Your task to perform on an android device: Add jbl charge 4 to the cart on bestbuy Image 0: 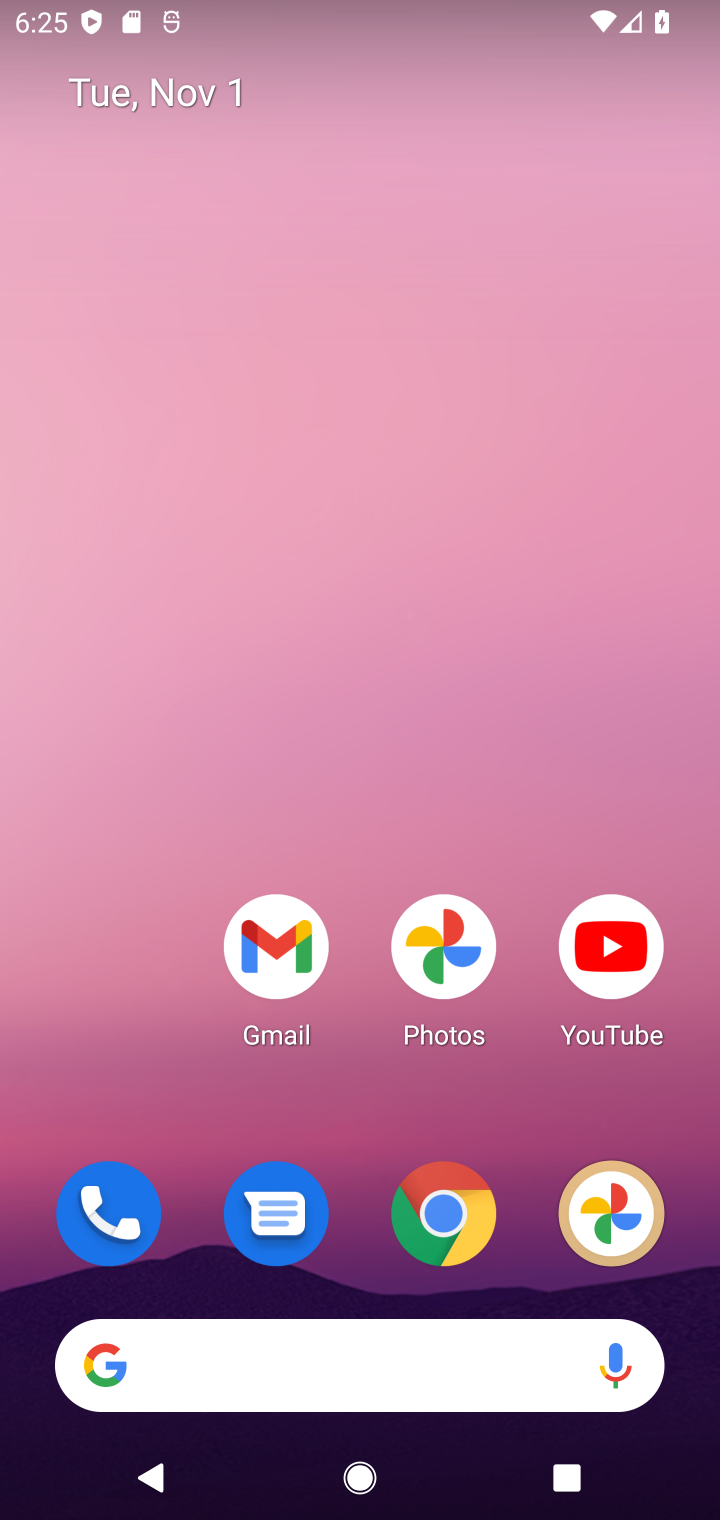
Step 0: click (447, 1212)
Your task to perform on an android device: Add jbl charge 4 to the cart on bestbuy Image 1: 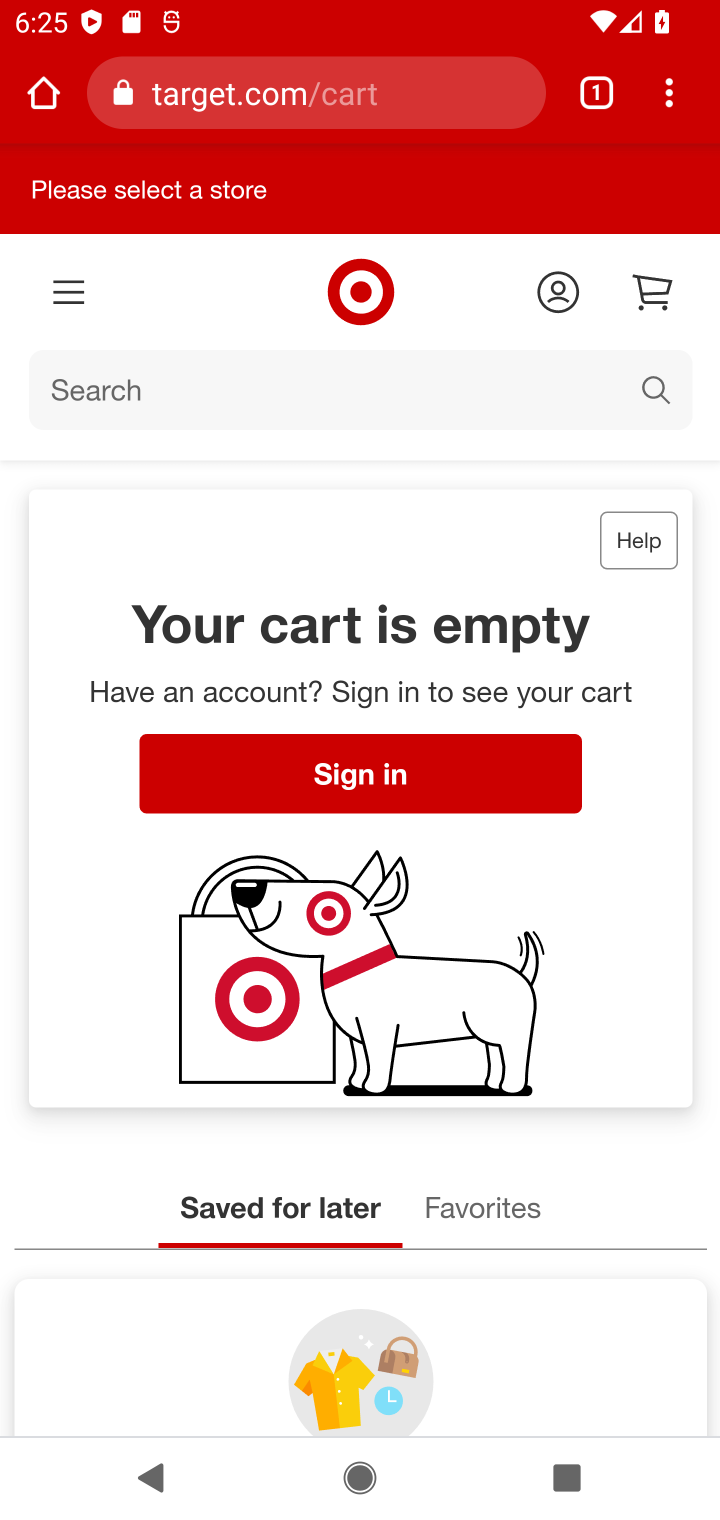
Step 1: click (326, 103)
Your task to perform on an android device: Add jbl charge 4 to the cart on bestbuy Image 2: 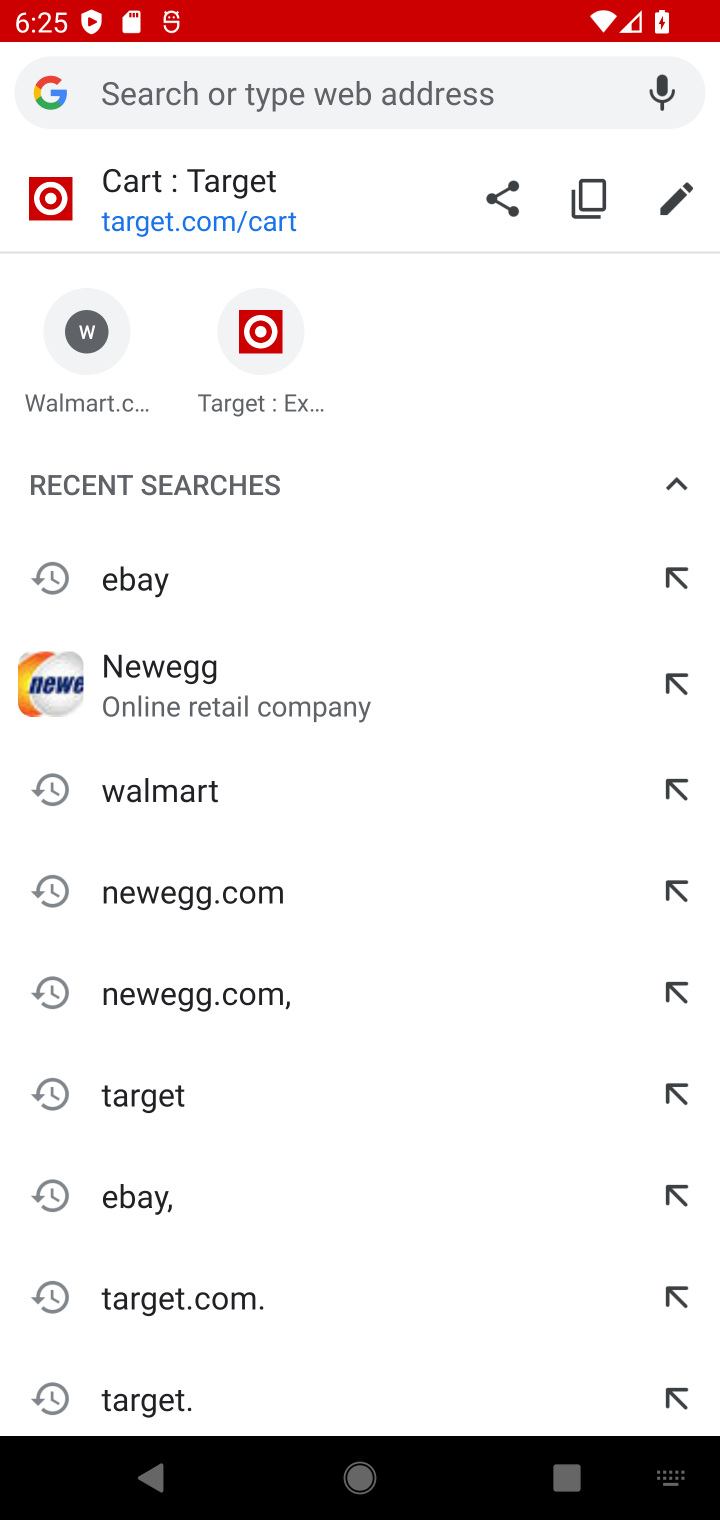
Step 2: type "bestbuy"
Your task to perform on an android device: Add jbl charge 4 to the cart on bestbuy Image 3: 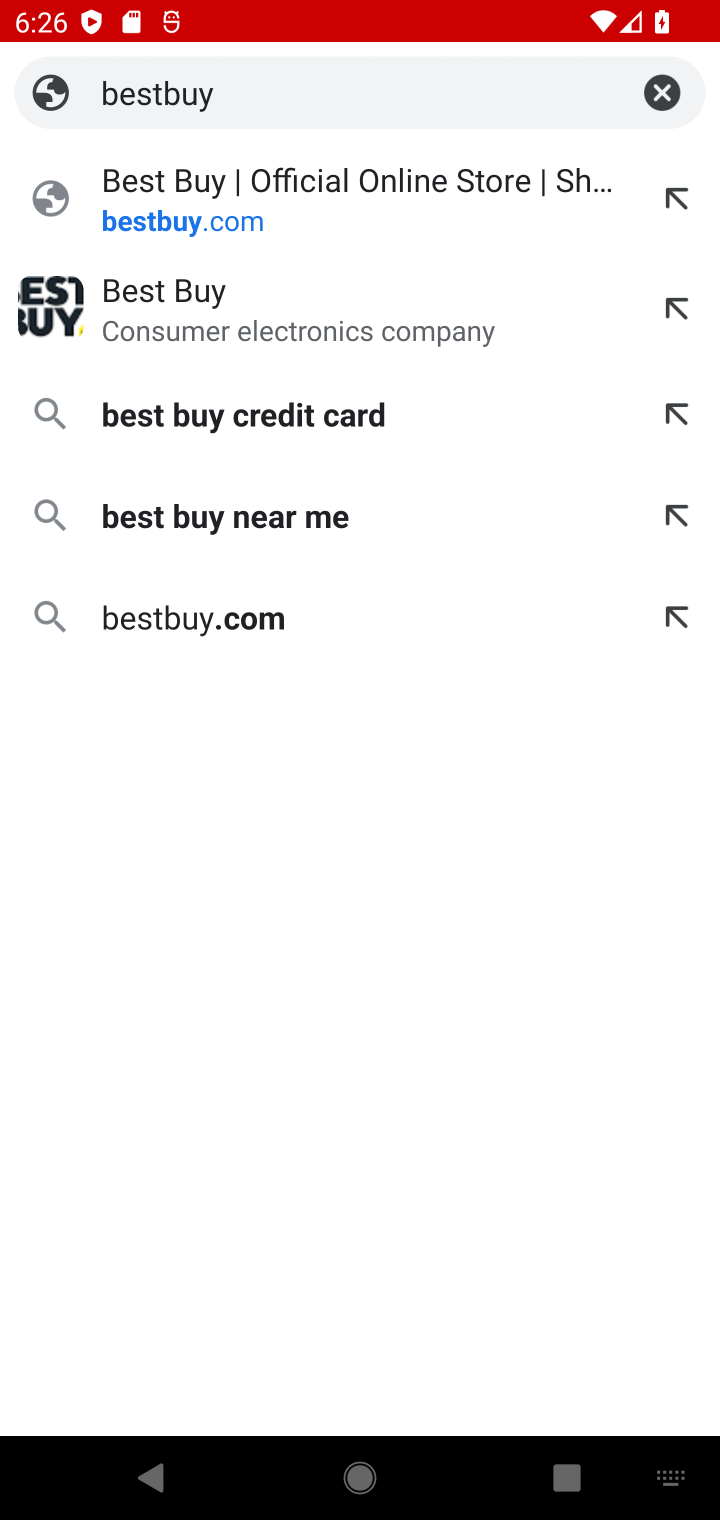
Step 3: click (158, 190)
Your task to perform on an android device: Add jbl charge 4 to the cart on bestbuy Image 4: 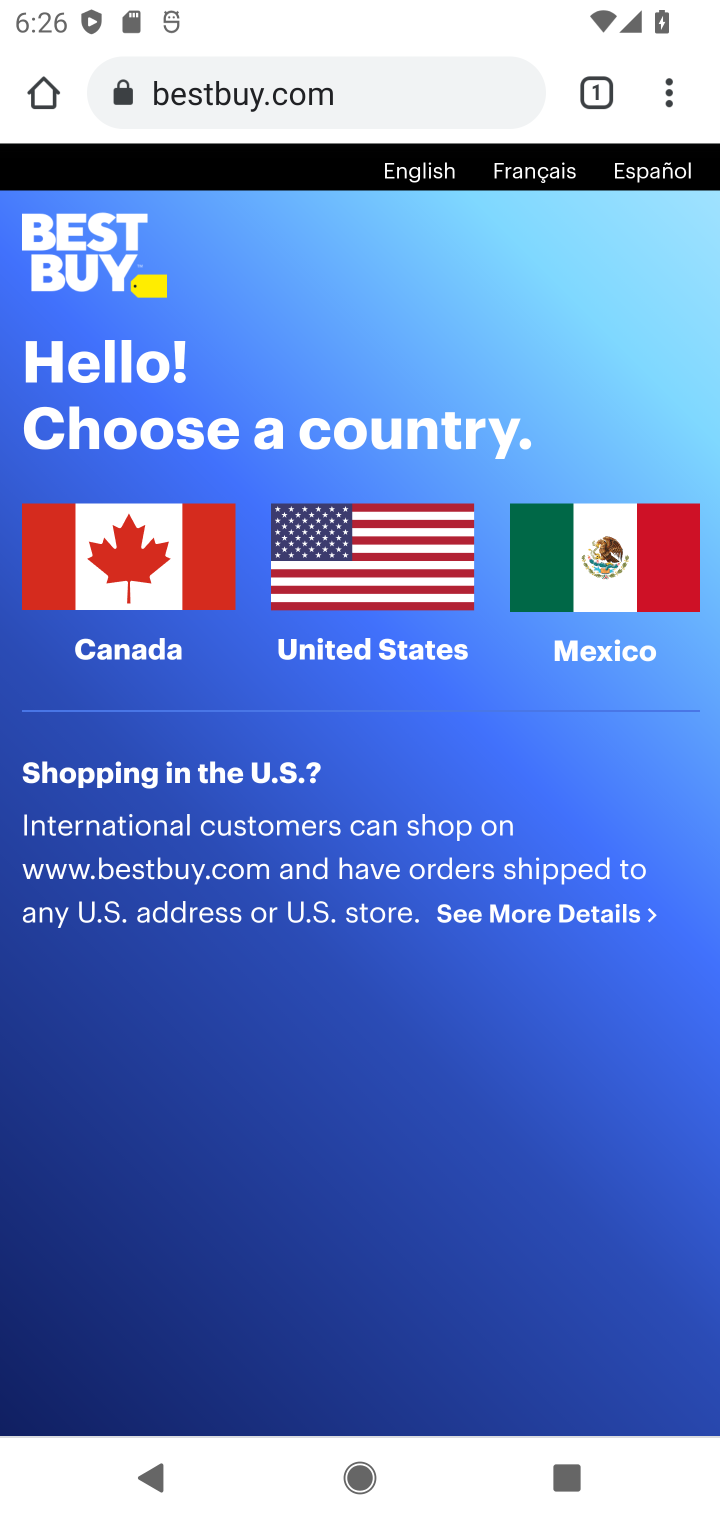
Step 4: click (389, 583)
Your task to perform on an android device: Add jbl charge 4 to the cart on bestbuy Image 5: 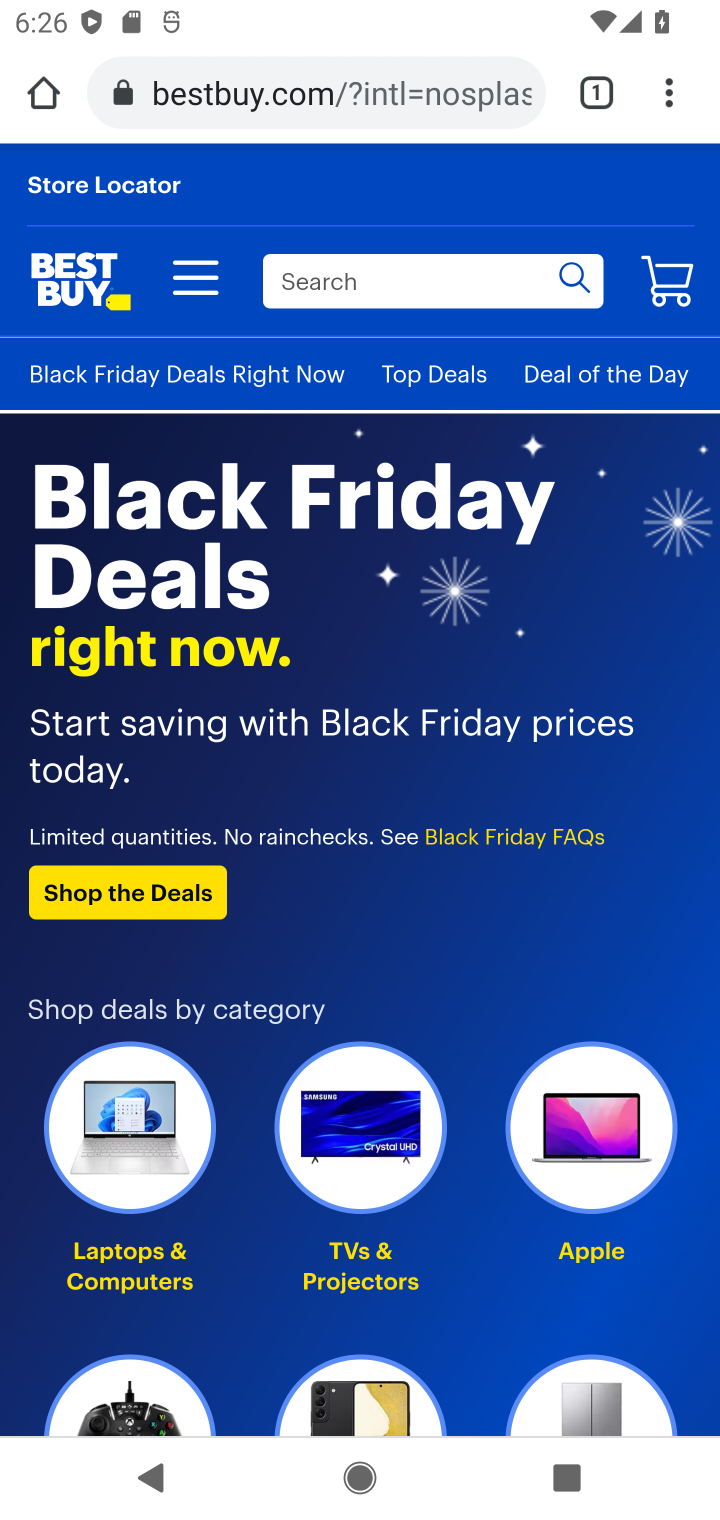
Step 5: click (398, 269)
Your task to perform on an android device: Add jbl charge 4 to the cart on bestbuy Image 6: 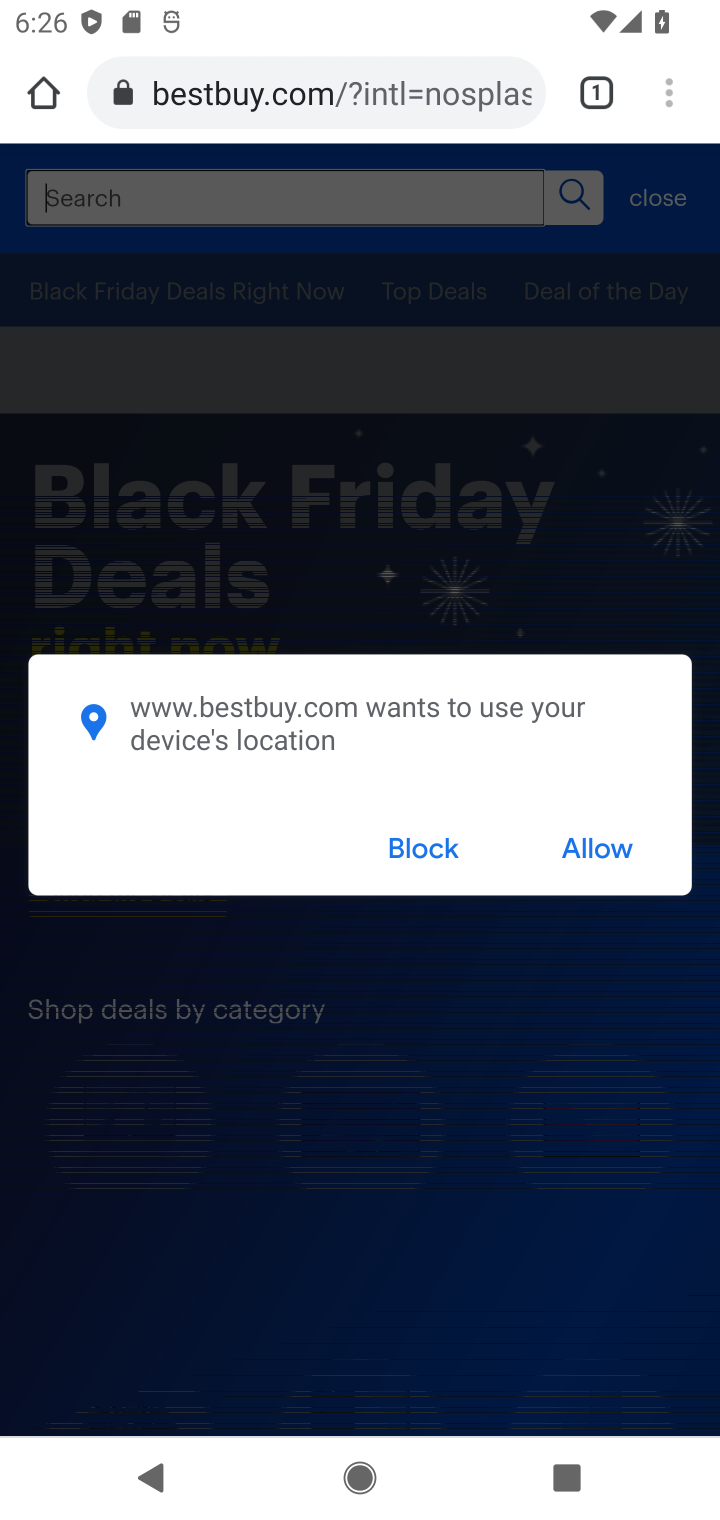
Step 6: click (603, 839)
Your task to perform on an android device: Add jbl charge 4 to the cart on bestbuy Image 7: 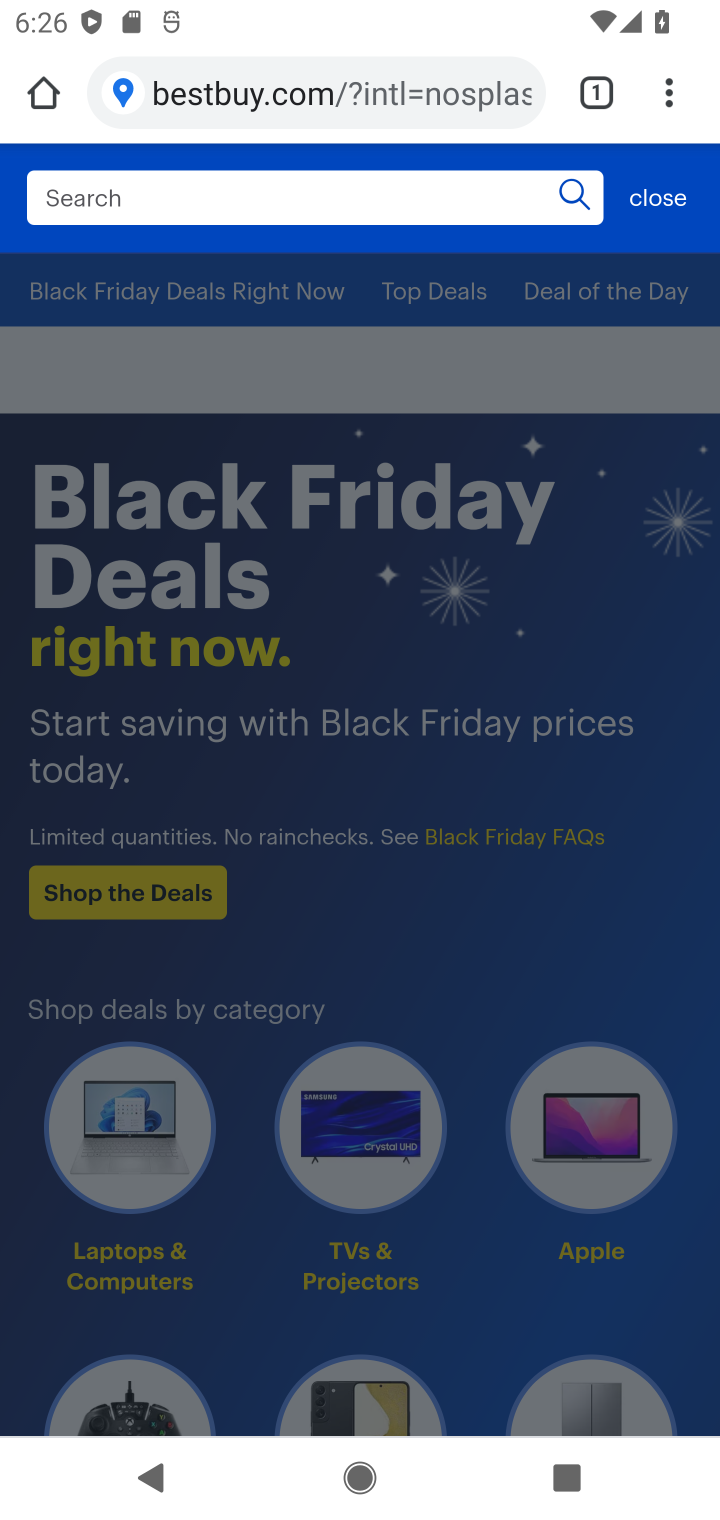
Step 7: click (218, 186)
Your task to perform on an android device: Add jbl charge 4 to the cart on bestbuy Image 8: 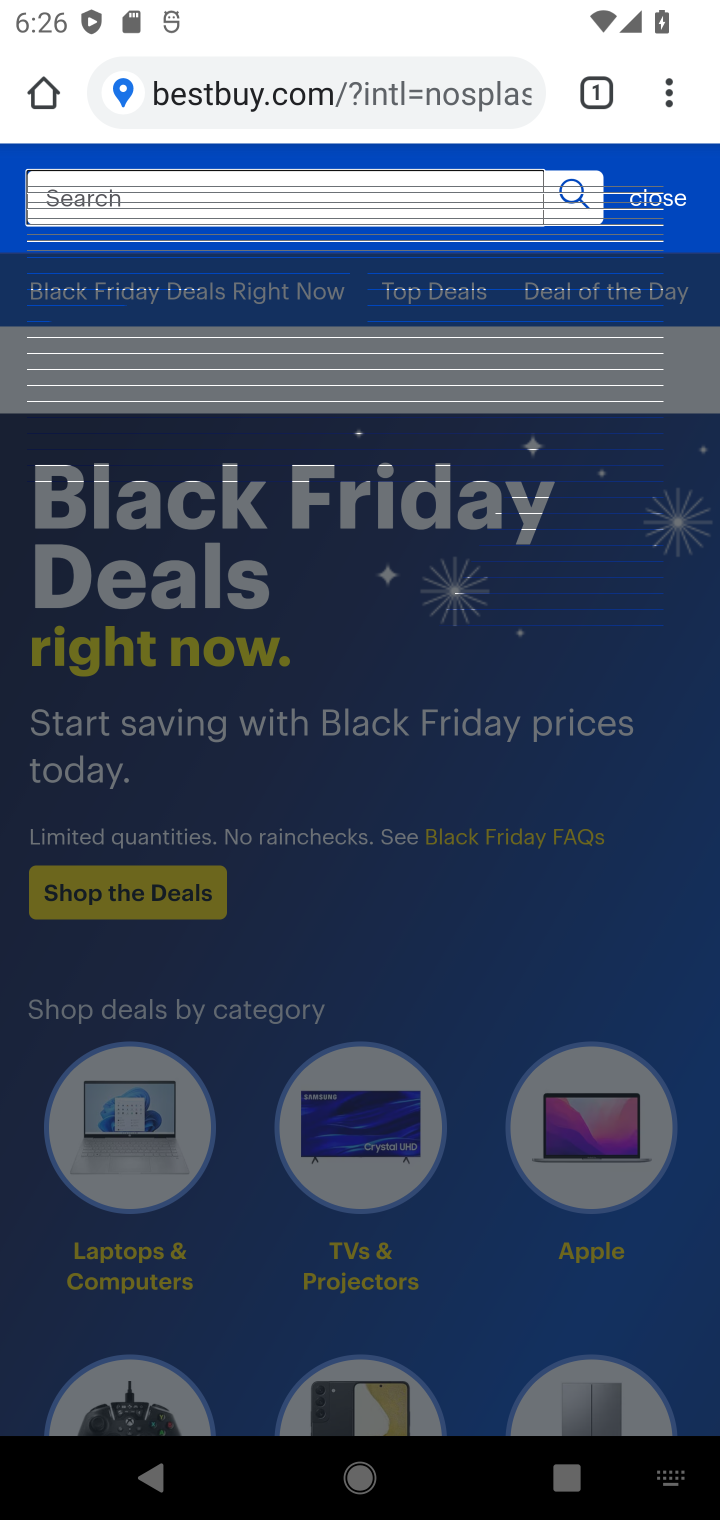
Step 8: type "jbl charge 4"
Your task to perform on an android device: Add jbl charge 4 to the cart on bestbuy Image 9: 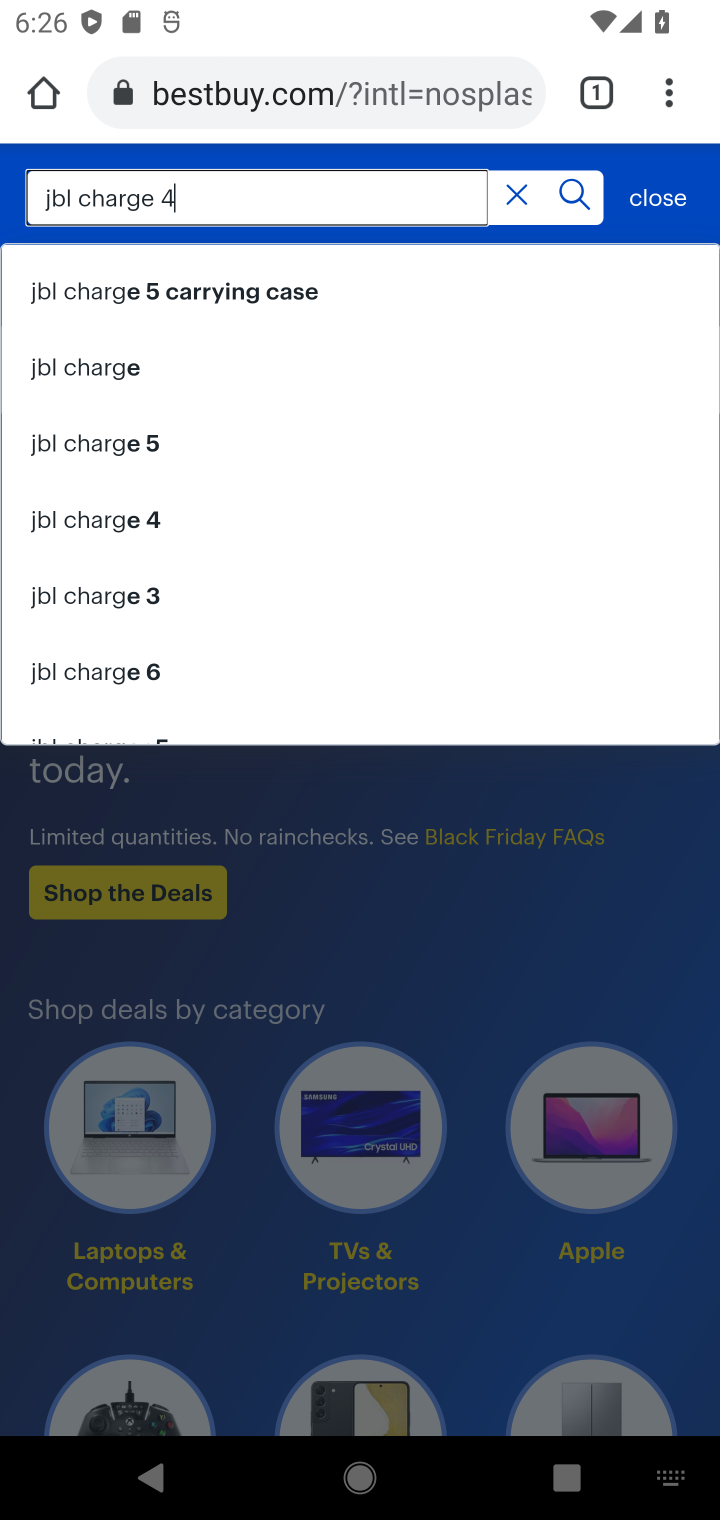
Step 9: click (572, 203)
Your task to perform on an android device: Add jbl charge 4 to the cart on bestbuy Image 10: 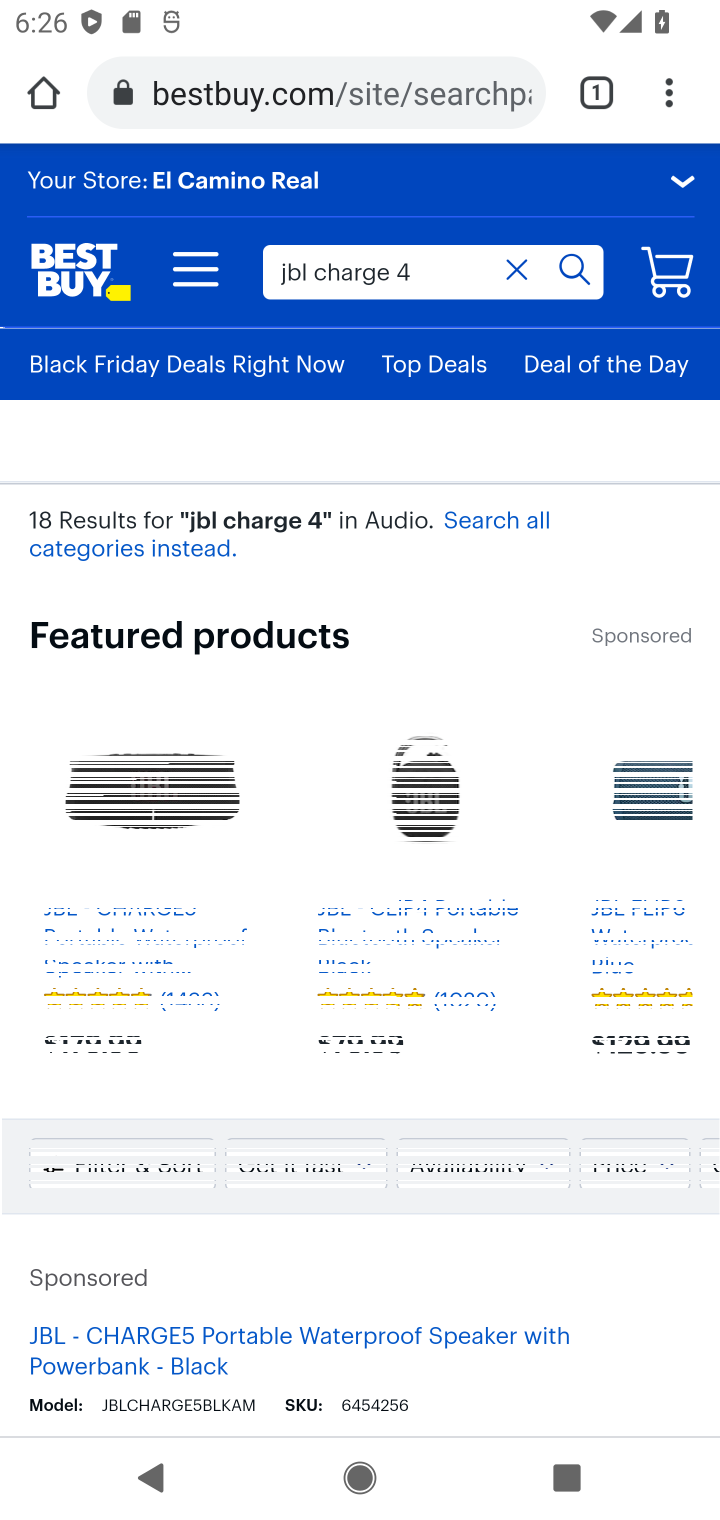
Step 10: task complete